Your task to perform on an android device: Show me popular games on the Play Store Image 0: 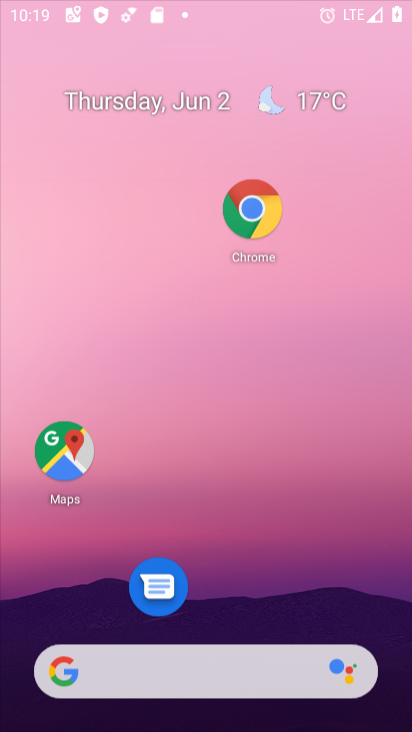
Step 0: press home button
Your task to perform on an android device: Show me popular games on the Play Store Image 1: 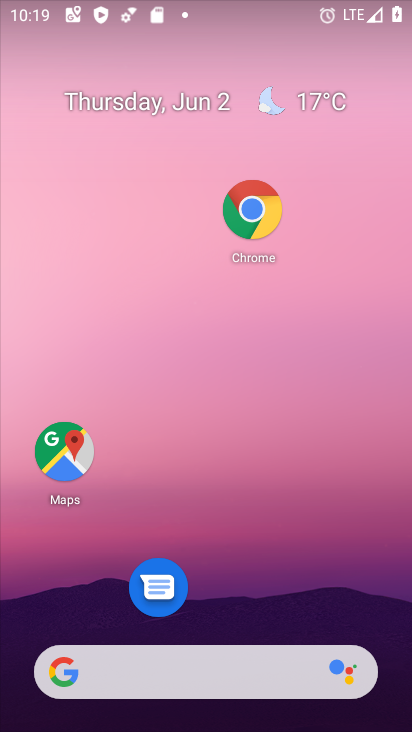
Step 1: drag from (209, 610) to (196, 49)
Your task to perform on an android device: Show me popular games on the Play Store Image 2: 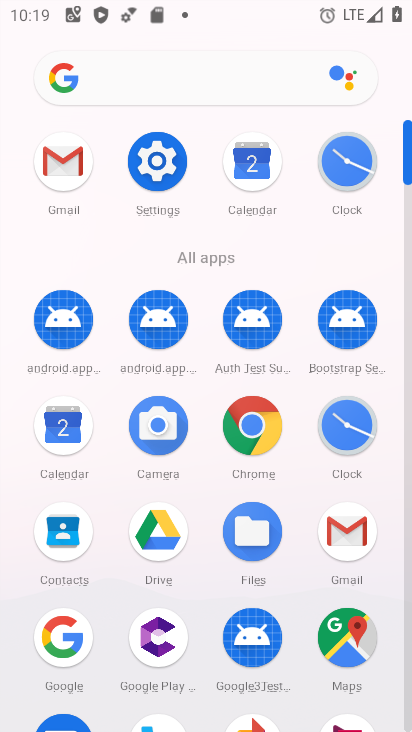
Step 2: drag from (202, 598) to (219, 126)
Your task to perform on an android device: Show me popular games on the Play Store Image 3: 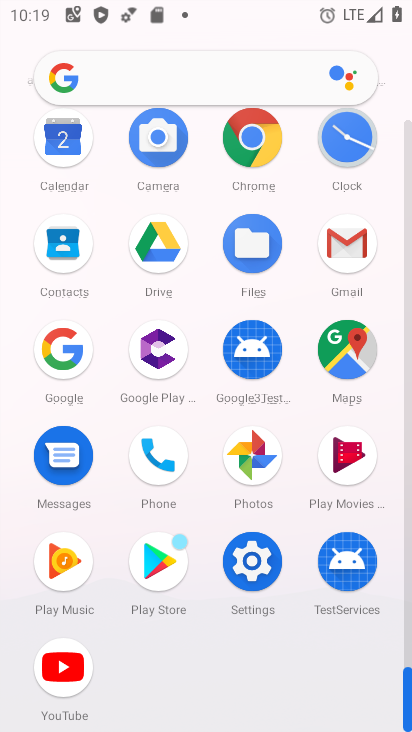
Step 3: click (154, 553)
Your task to perform on an android device: Show me popular games on the Play Store Image 4: 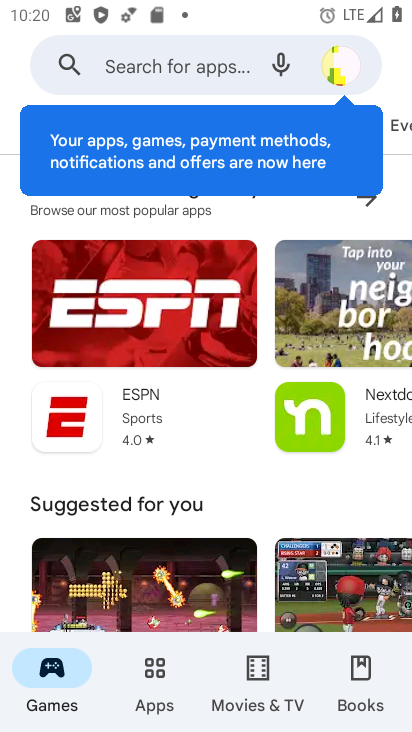
Step 4: drag from (199, 622) to (283, 75)
Your task to perform on an android device: Show me popular games on the Play Store Image 5: 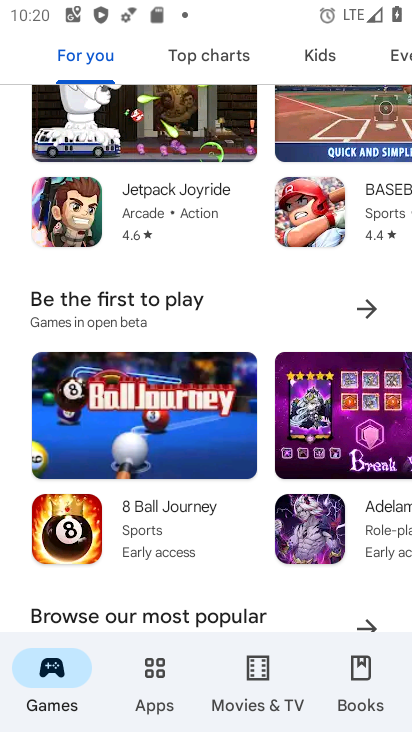
Step 5: drag from (191, 555) to (207, 305)
Your task to perform on an android device: Show me popular games on the Play Store Image 6: 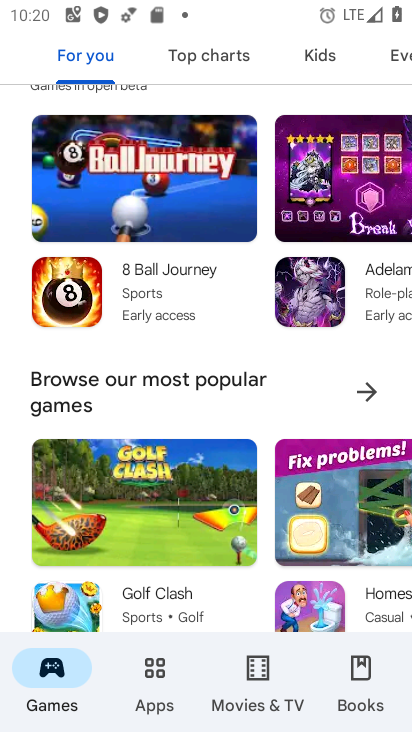
Step 6: click (357, 389)
Your task to perform on an android device: Show me popular games on the Play Store Image 7: 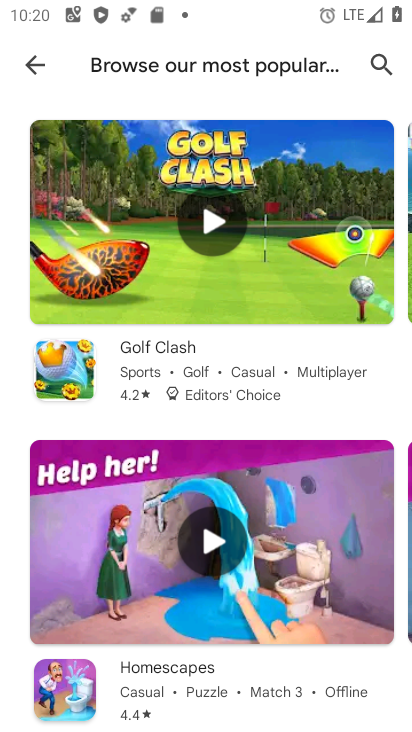
Step 7: task complete